Your task to perform on an android device: check out phone information Image 0: 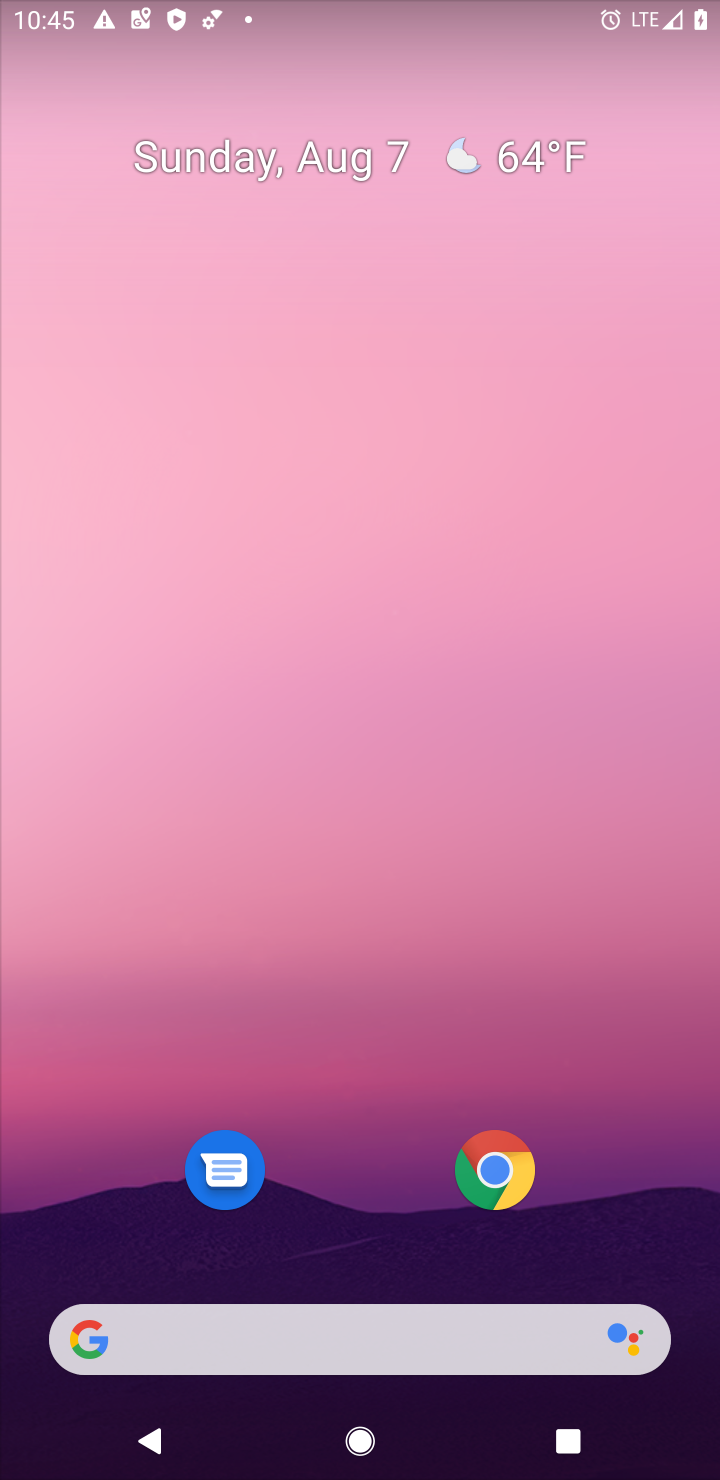
Step 0: drag from (497, 1315) to (524, 72)
Your task to perform on an android device: check out phone information Image 1: 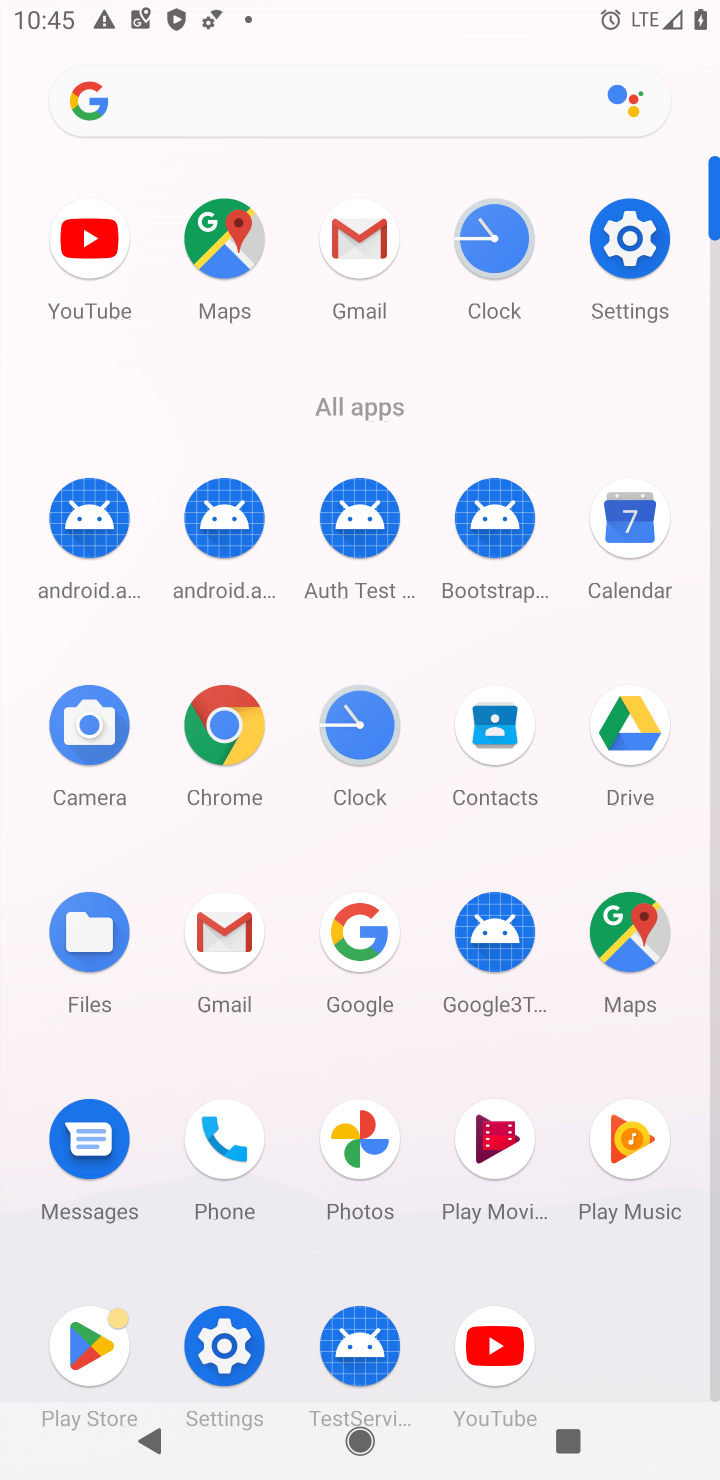
Step 1: click (245, 1354)
Your task to perform on an android device: check out phone information Image 2: 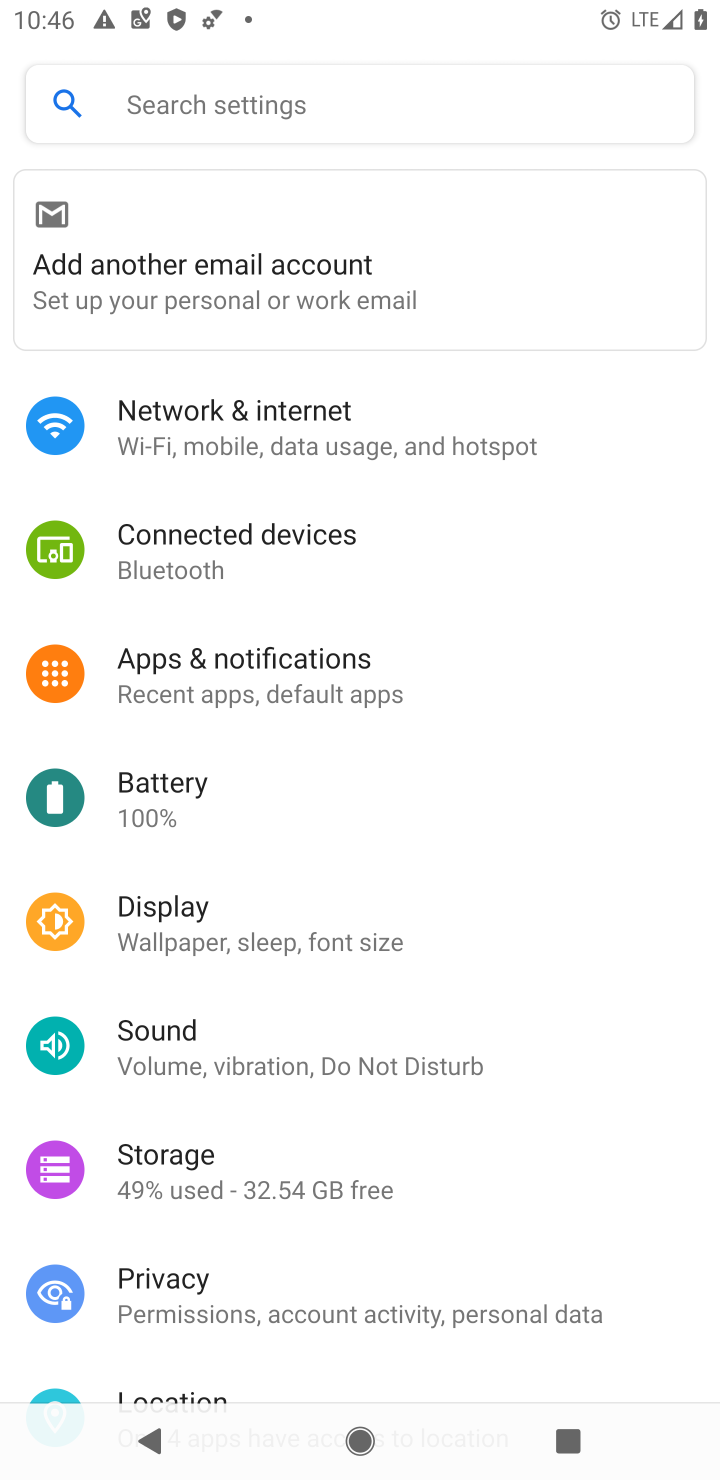
Step 2: drag from (667, 1293) to (554, 60)
Your task to perform on an android device: check out phone information Image 3: 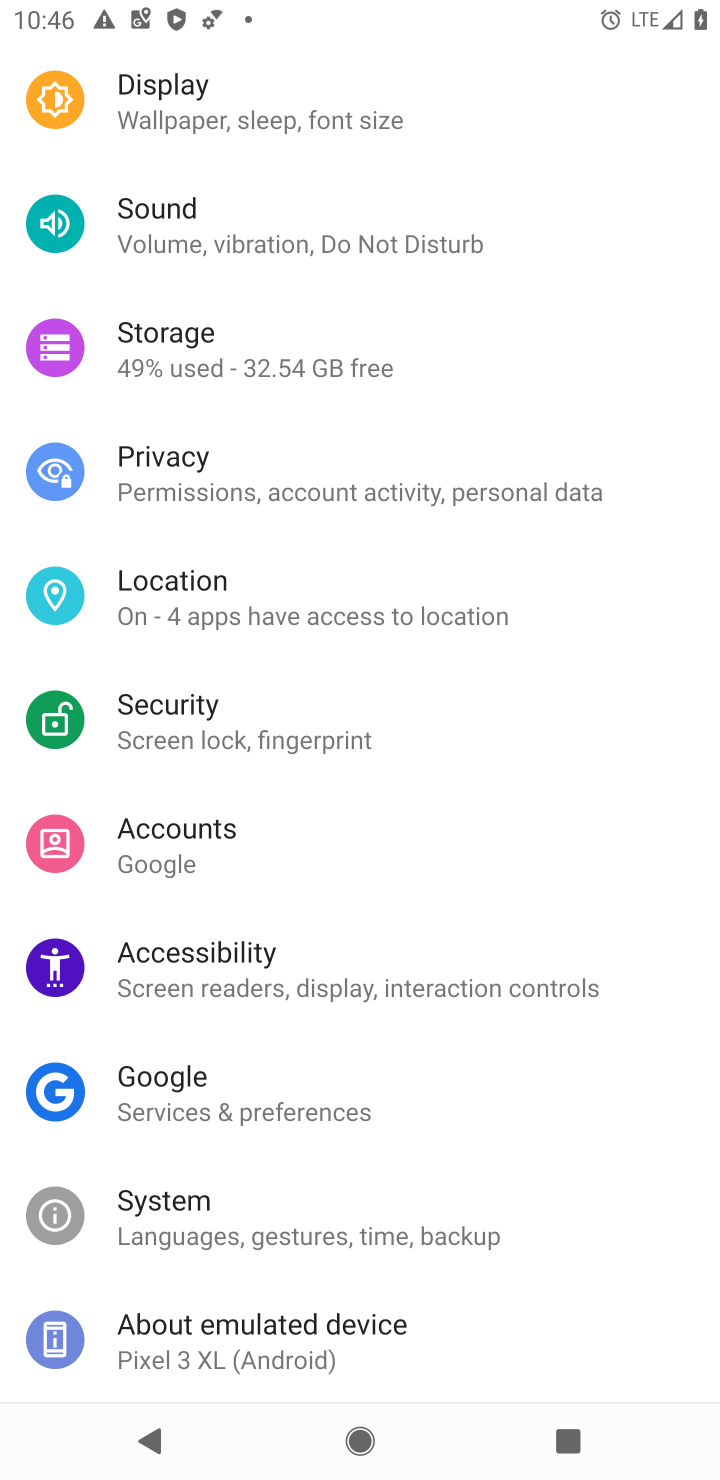
Step 3: click (276, 1388)
Your task to perform on an android device: check out phone information Image 4: 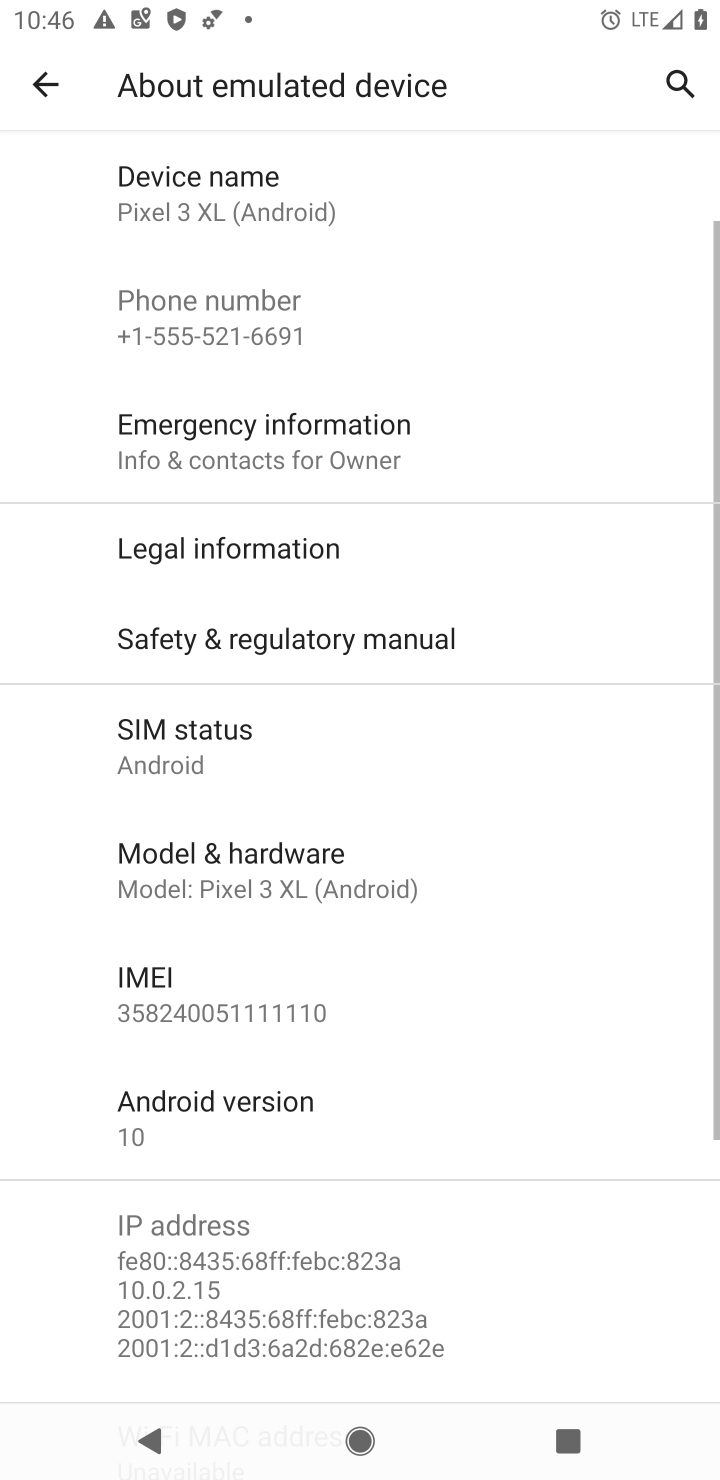
Step 4: task complete